Your task to perform on an android device: create a new album in the google photos Image 0: 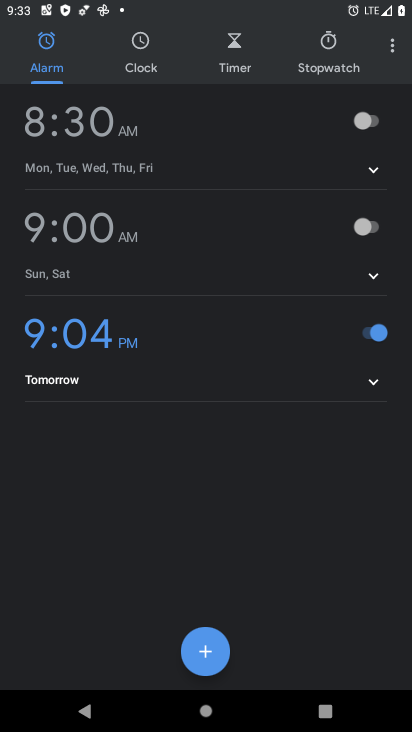
Step 0: press home button
Your task to perform on an android device: create a new album in the google photos Image 1: 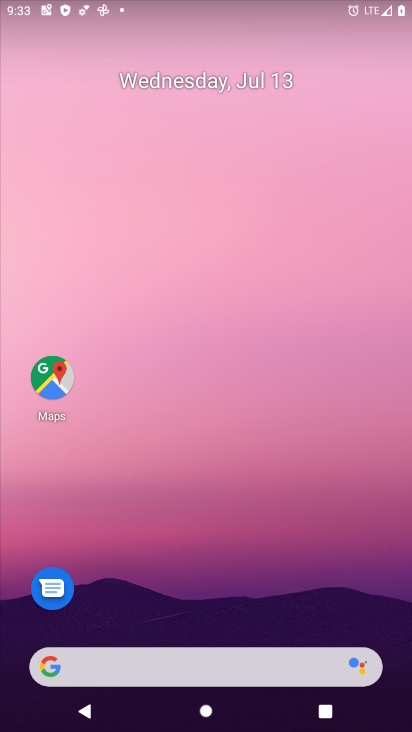
Step 1: drag from (270, 707) to (248, 17)
Your task to perform on an android device: create a new album in the google photos Image 2: 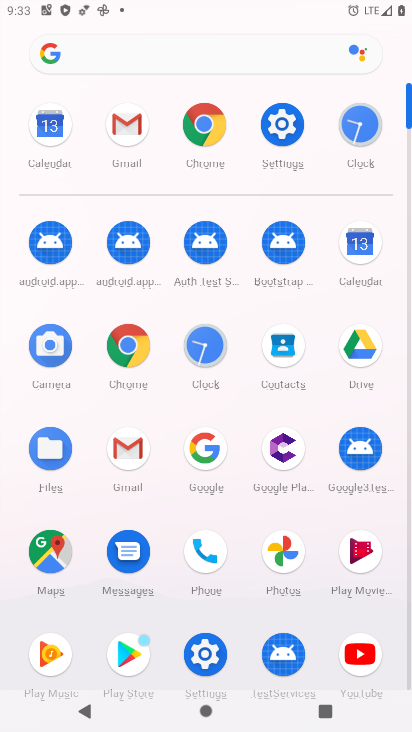
Step 2: click (294, 554)
Your task to perform on an android device: create a new album in the google photos Image 3: 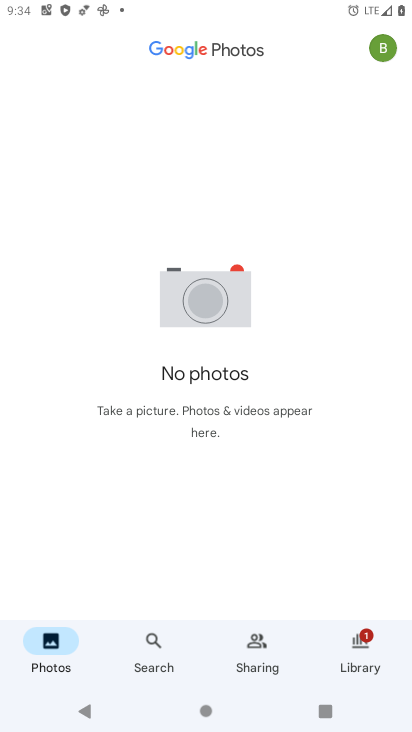
Step 3: task complete